Your task to perform on an android device: turn off airplane mode Image 0: 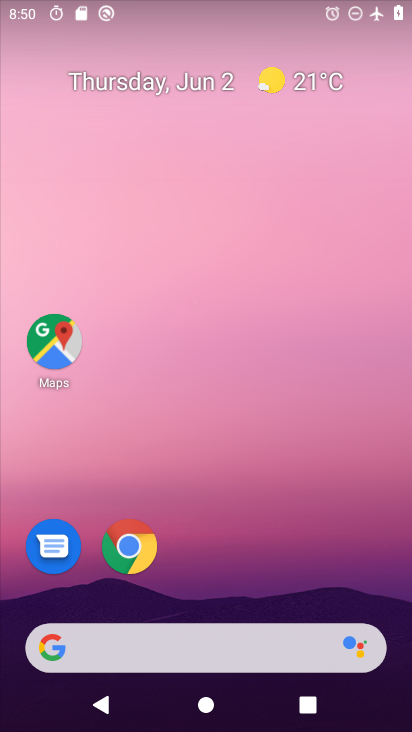
Step 0: drag from (332, 594) to (335, 198)
Your task to perform on an android device: turn off airplane mode Image 1: 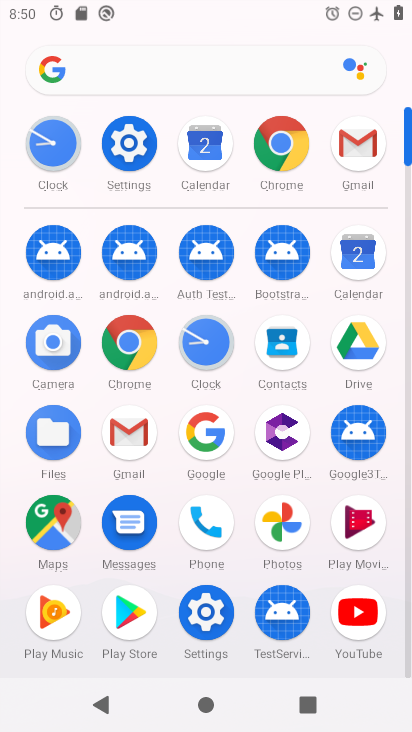
Step 1: click (128, 130)
Your task to perform on an android device: turn off airplane mode Image 2: 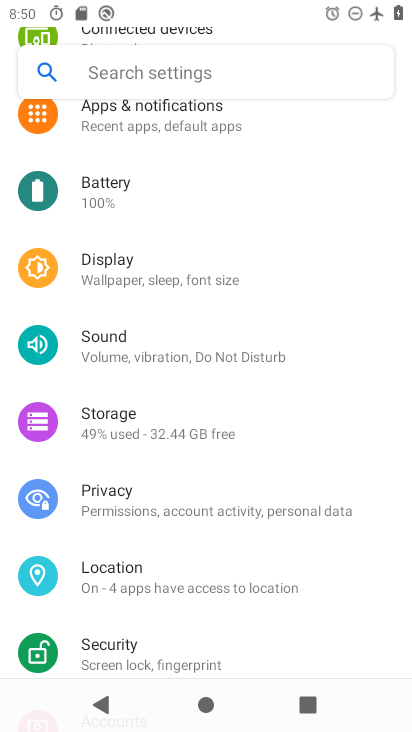
Step 2: drag from (198, 164) to (235, 548)
Your task to perform on an android device: turn off airplane mode Image 3: 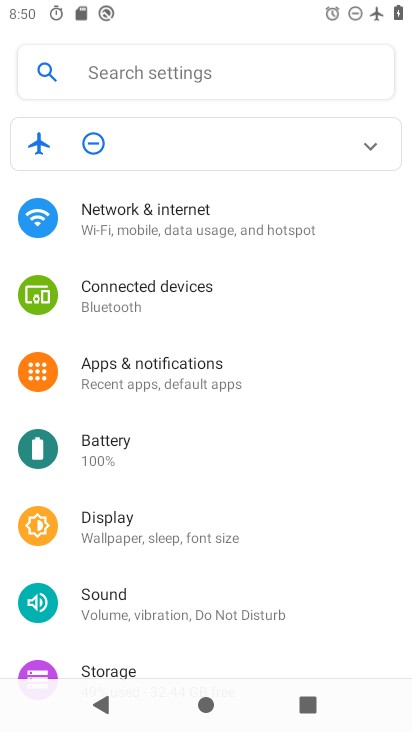
Step 3: click (236, 227)
Your task to perform on an android device: turn off airplane mode Image 4: 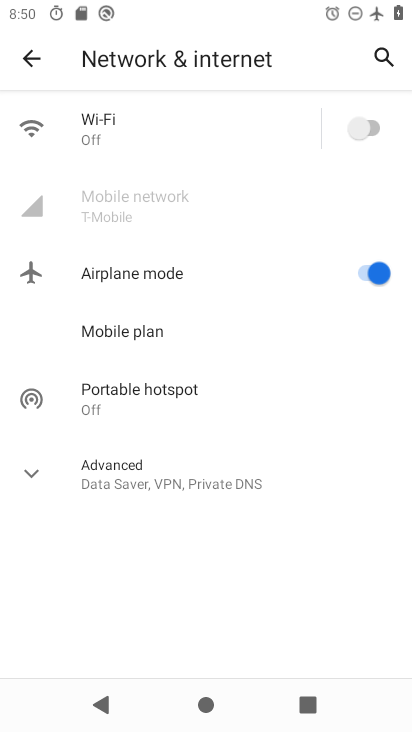
Step 4: click (371, 272)
Your task to perform on an android device: turn off airplane mode Image 5: 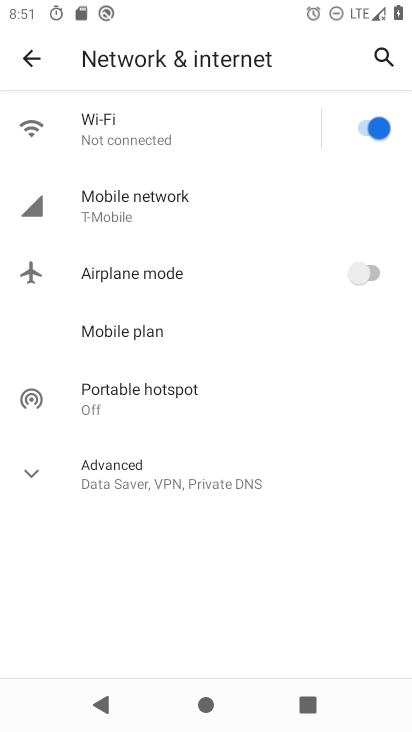
Step 5: task complete